Your task to perform on an android device: read, delete, or share a saved page in the chrome app Image 0: 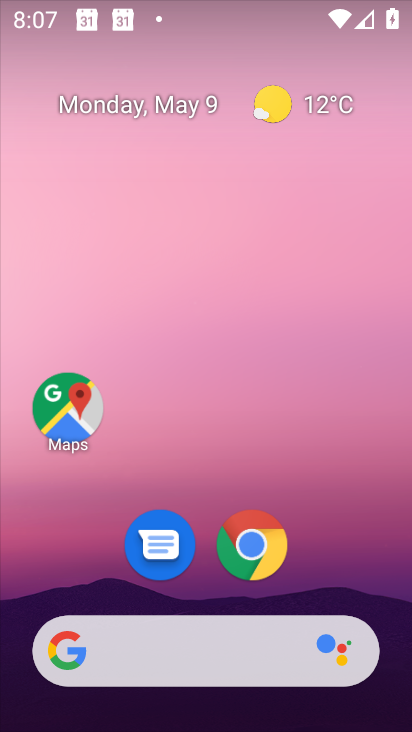
Step 0: drag from (199, 714) to (199, 112)
Your task to perform on an android device: read, delete, or share a saved page in the chrome app Image 1: 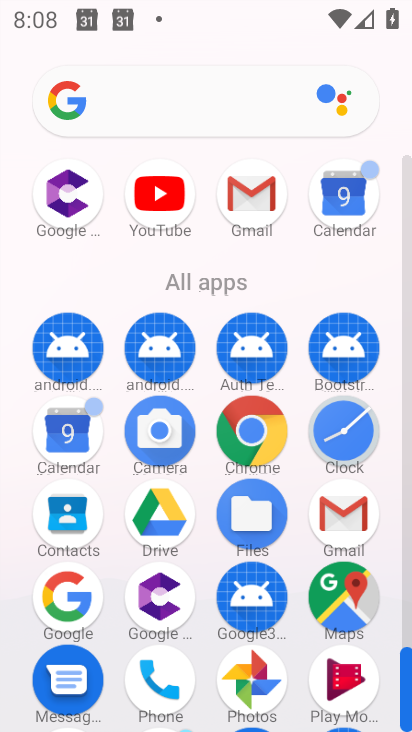
Step 1: click (254, 435)
Your task to perform on an android device: read, delete, or share a saved page in the chrome app Image 2: 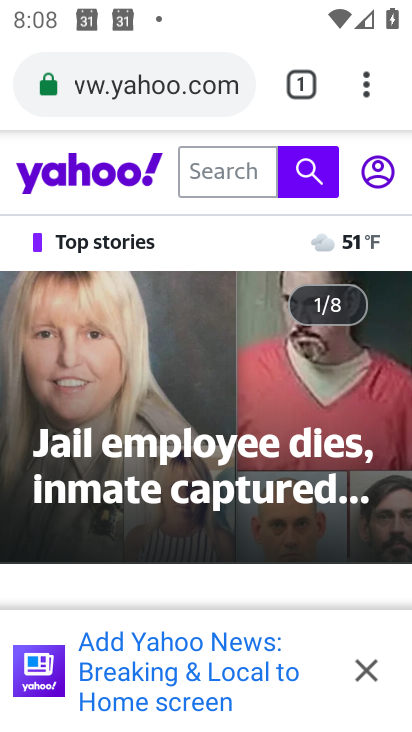
Step 2: click (367, 94)
Your task to perform on an android device: read, delete, or share a saved page in the chrome app Image 3: 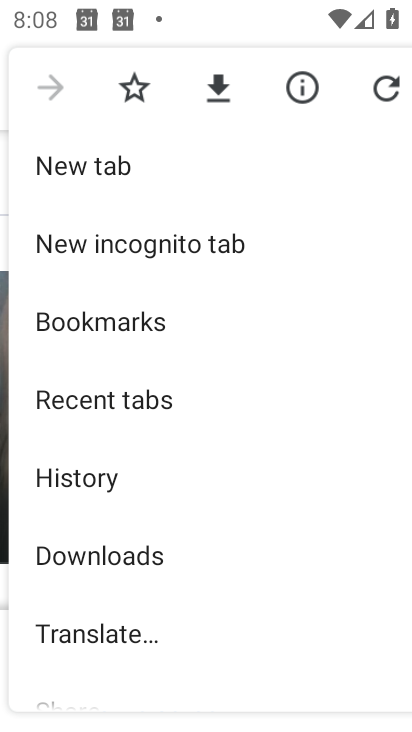
Step 3: click (95, 561)
Your task to perform on an android device: read, delete, or share a saved page in the chrome app Image 4: 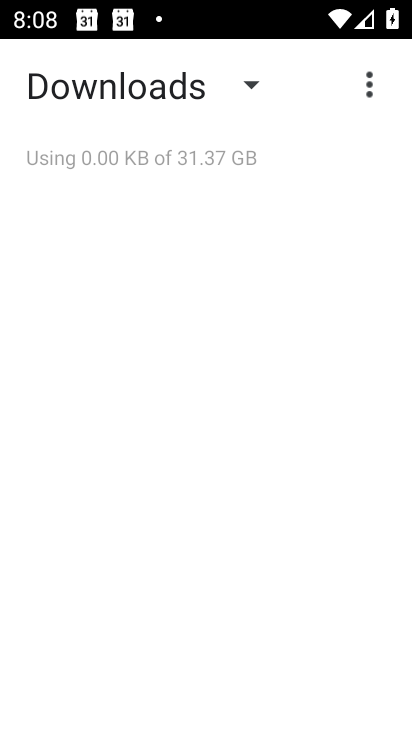
Step 4: click (254, 80)
Your task to perform on an android device: read, delete, or share a saved page in the chrome app Image 5: 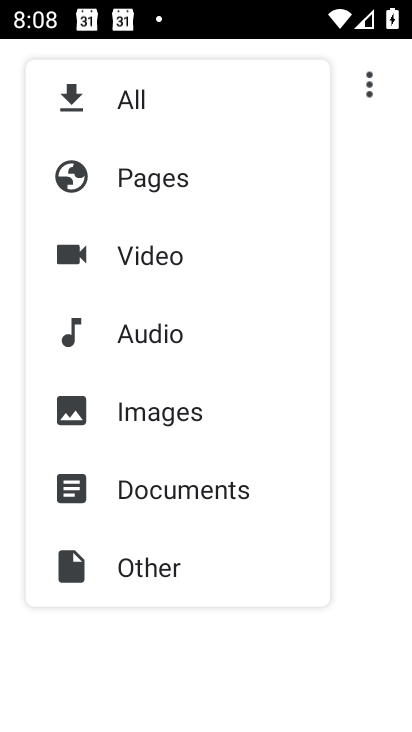
Step 5: click (169, 178)
Your task to perform on an android device: read, delete, or share a saved page in the chrome app Image 6: 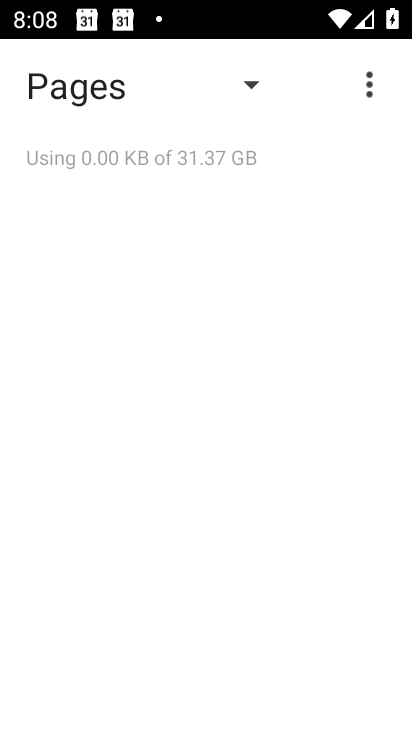
Step 6: task complete